Your task to perform on an android device: open app "Reddit" Image 0: 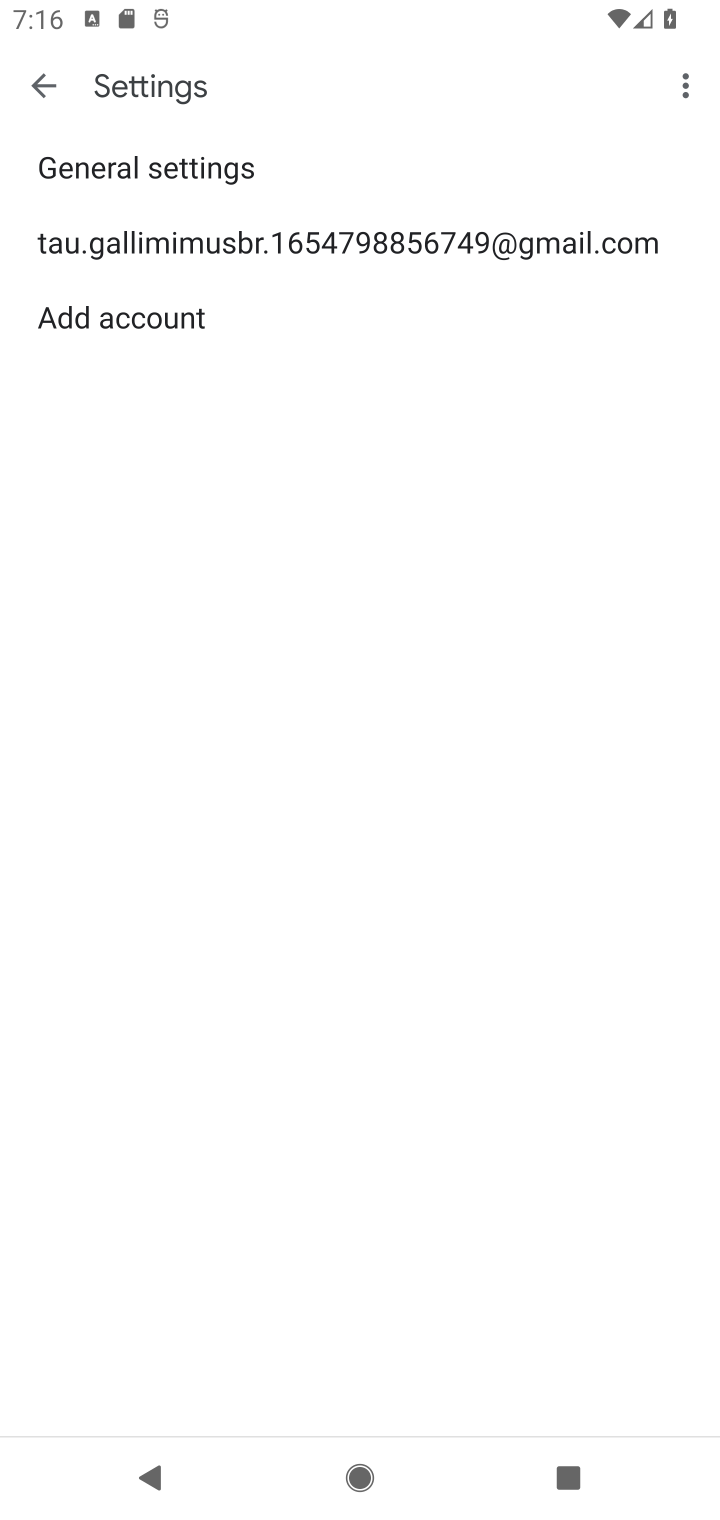
Step 0: press home button
Your task to perform on an android device: open app "Reddit" Image 1: 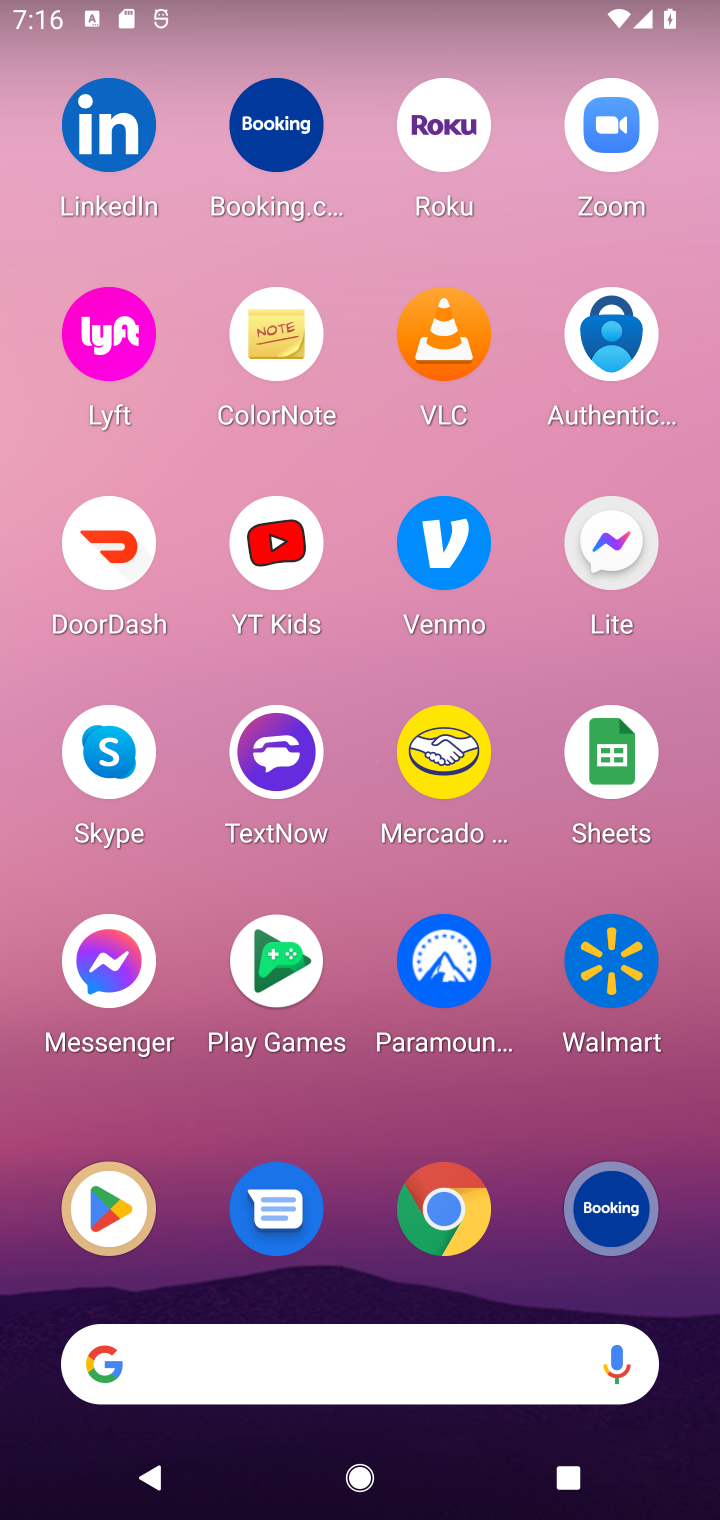
Step 1: click (111, 1200)
Your task to perform on an android device: open app "Reddit" Image 2: 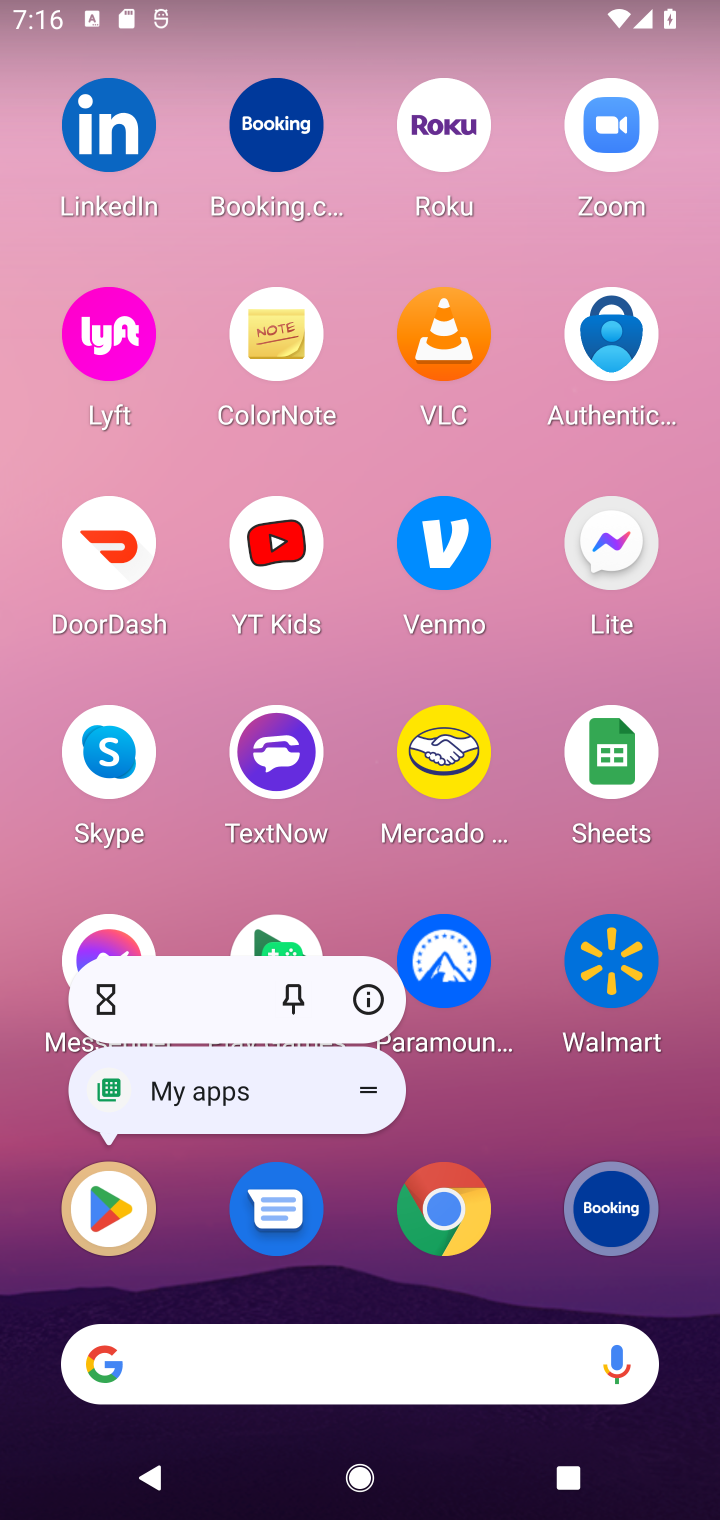
Step 2: click (111, 1200)
Your task to perform on an android device: open app "Reddit" Image 3: 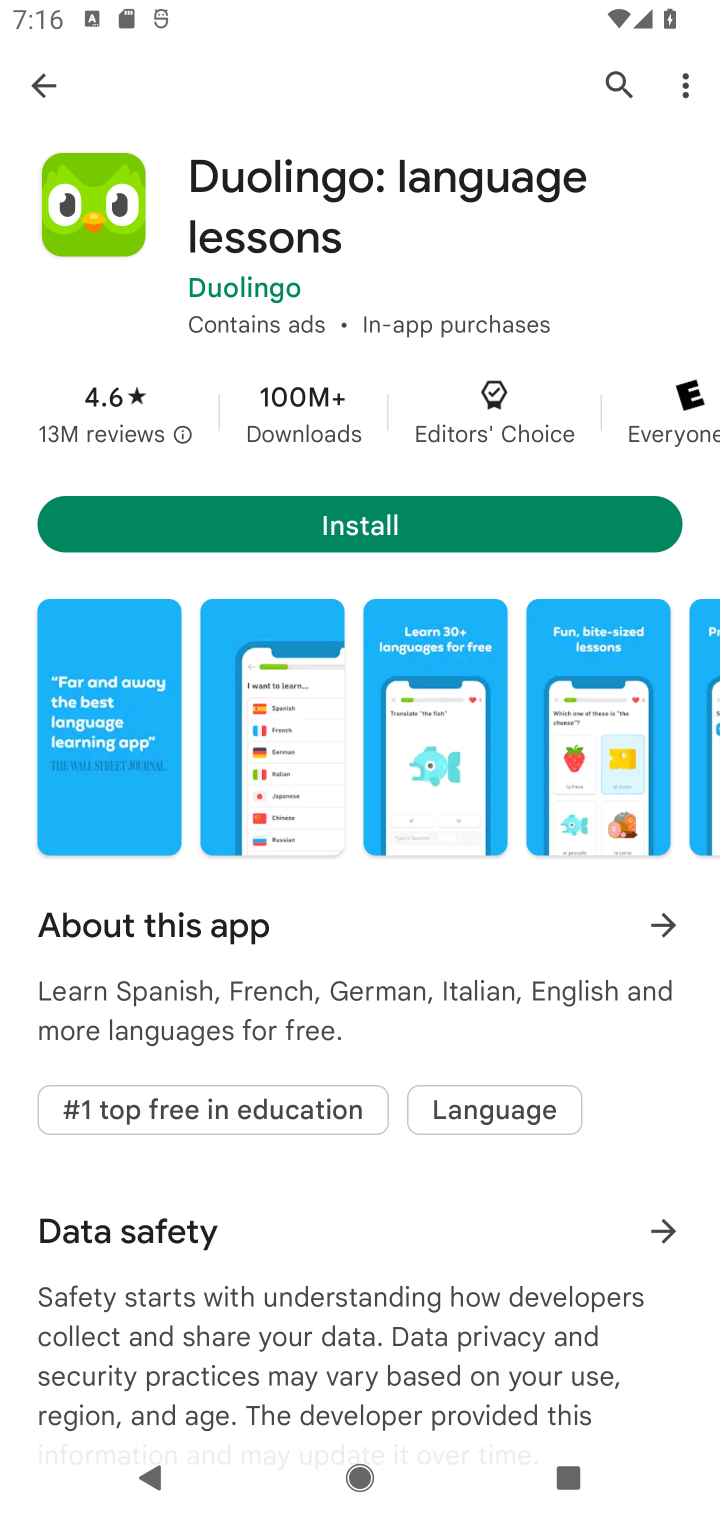
Step 3: click (615, 82)
Your task to perform on an android device: open app "Reddit" Image 4: 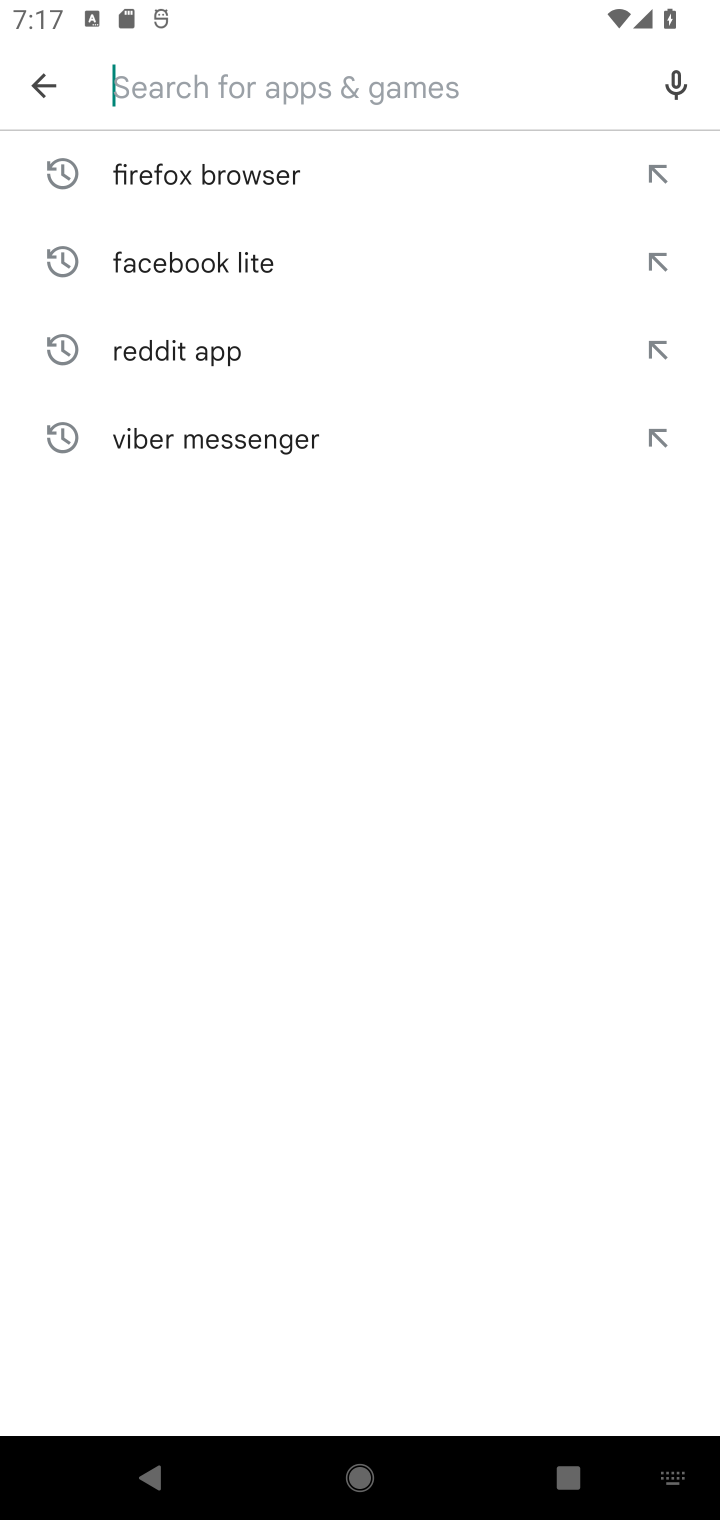
Step 4: type "reddit"
Your task to perform on an android device: open app "Reddit" Image 5: 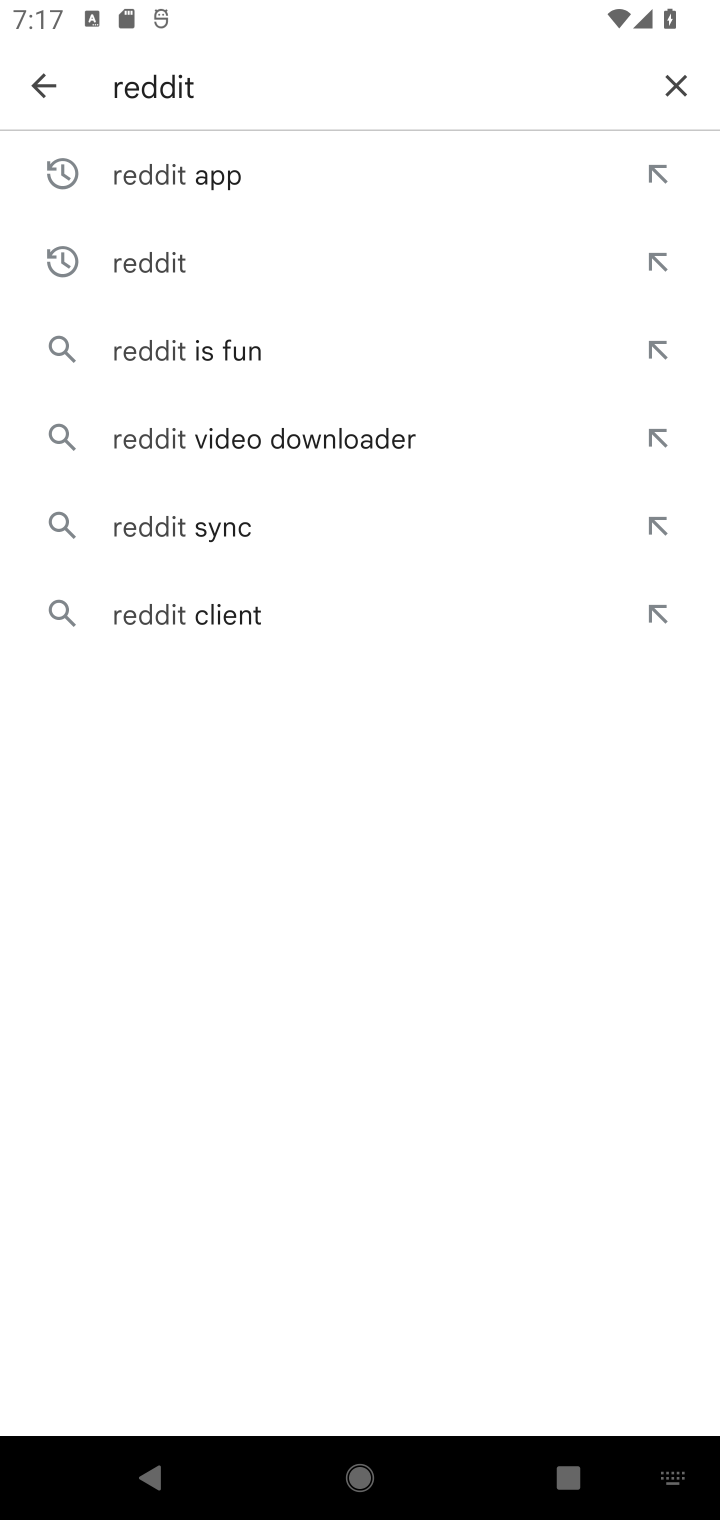
Step 5: click (206, 181)
Your task to perform on an android device: open app "Reddit" Image 6: 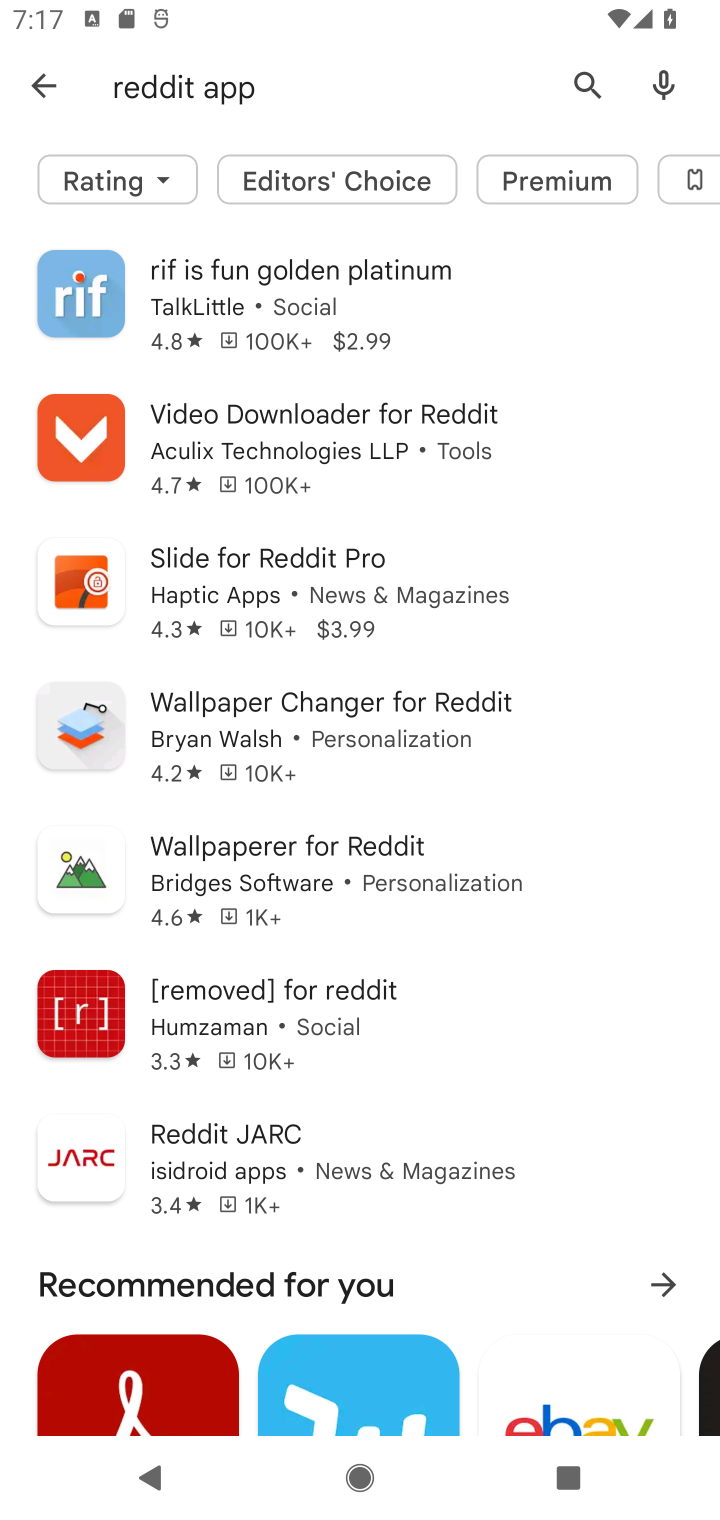
Step 6: task complete